Your task to perform on an android device: Clear the cart on newegg. Image 0: 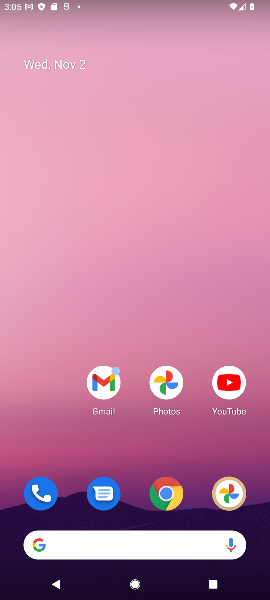
Step 0: click (174, 486)
Your task to perform on an android device: Clear the cart on newegg. Image 1: 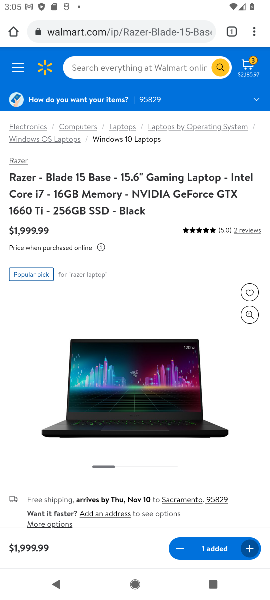
Step 1: click (132, 27)
Your task to perform on an android device: Clear the cart on newegg. Image 2: 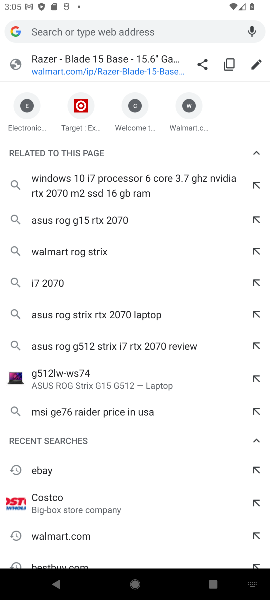
Step 2: type "newegg"
Your task to perform on an android device: Clear the cart on newegg. Image 3: 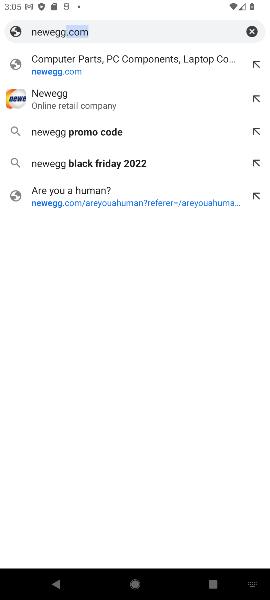
Step 3: click (156, 31)
Your task to perform on an android device: Clear the cart on newegg. Image 4: 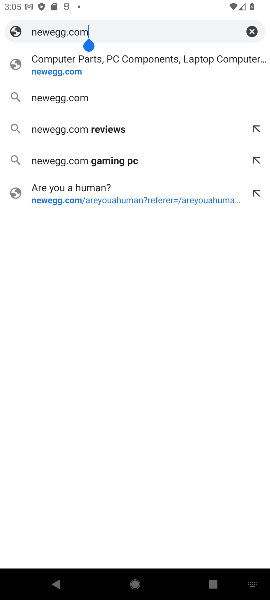
Step 4: click (81, 92)
Your task to perform on an android device: Clear the cart on newegg. Image 5: 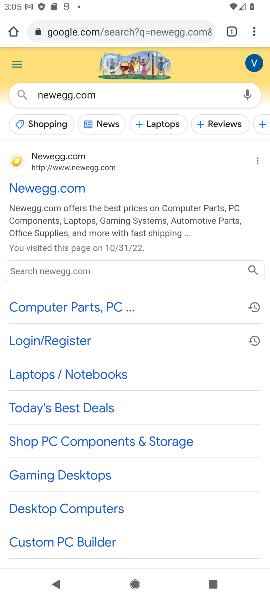
Step 5: click (56, 154)
Your task to perform on an android device: Clear the cart on newegg. Image 6: 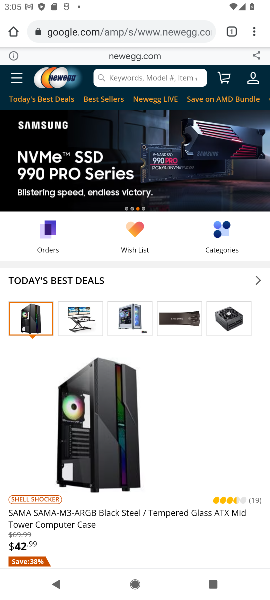
Step 6: click (227, 79)
Your task to perform on an android device: Clear the cart on newegg. Image 7: 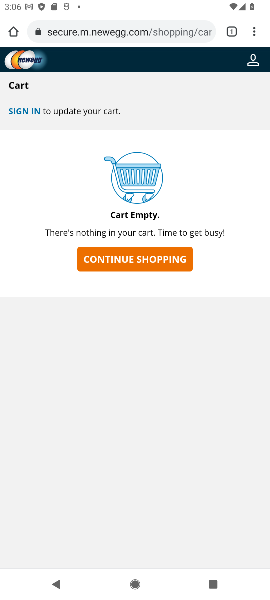
Step 7: task complete